Your task to perform on an android device: Open privacy settings Image 0: 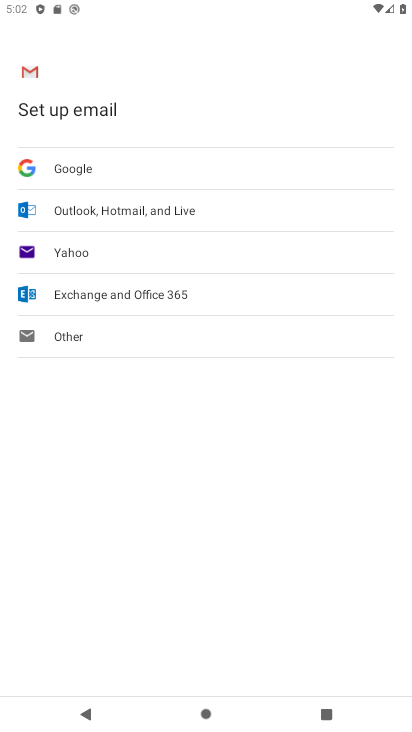
Step 0: press back button
Your task to perform on an android device: Open privacy settings Image 1: 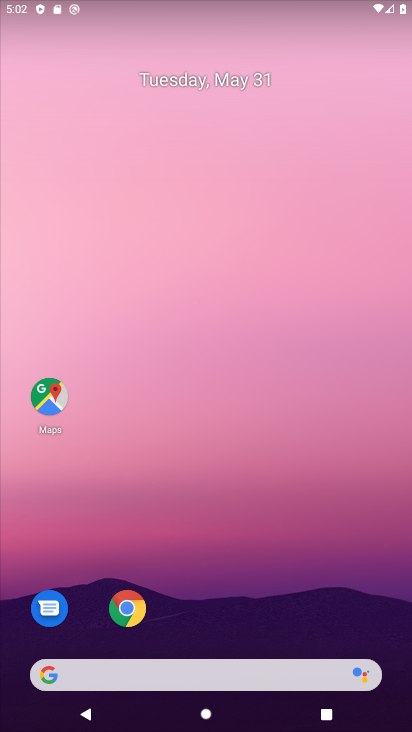
Step 1: drag from (239, 541) to (208, 94)
Your task to perform on an android device: Open privacy settings Image 2: 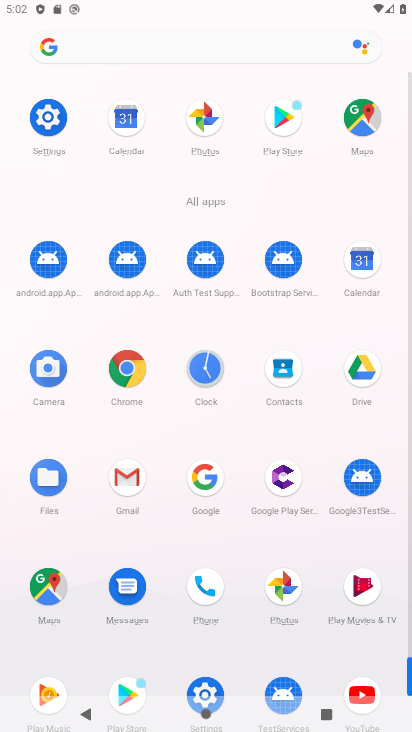
Step 2: click (48, 118)
Your task to perform on an android device: Open privacy settings Image 3: 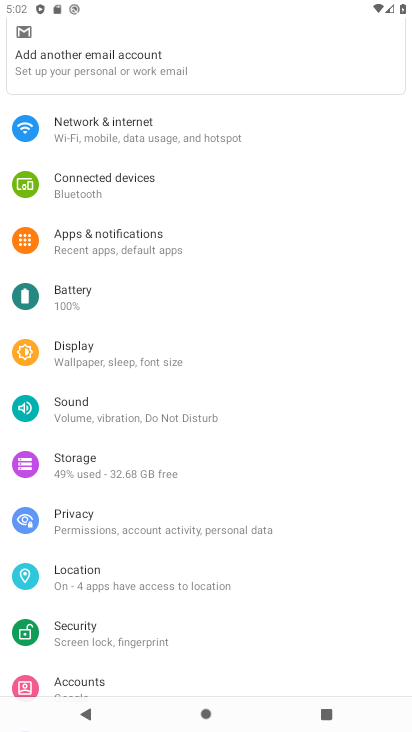
Step 3: click (77, 514)
Your task to perform on an android device: Open privacy settings Image 4: 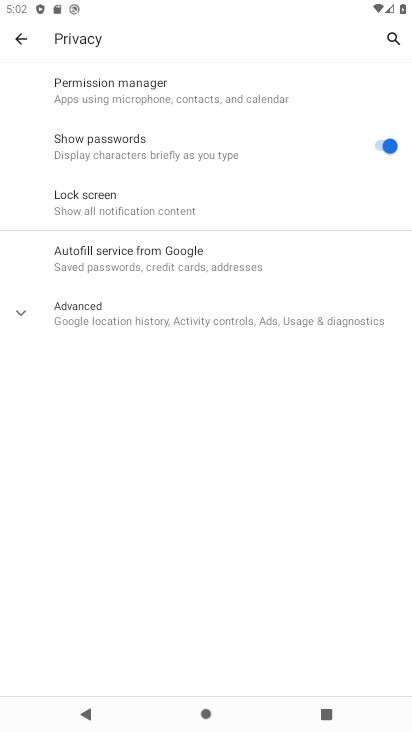
Step 4: task complete